Your task to perform on an android device: delete location history Image 0: 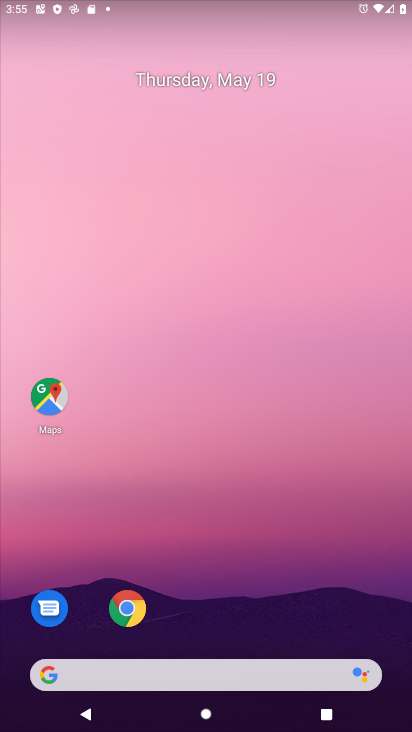
Step 0: drag from (326, 558) to (271, 183)
Your task to perform on an android device: delete location history Image 1: 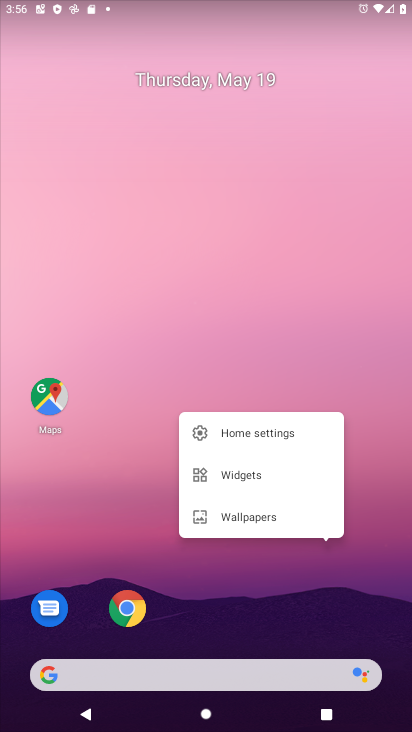
Step 1: click (313, 585)
Your task to perform on an android device: delete location history Image 2: 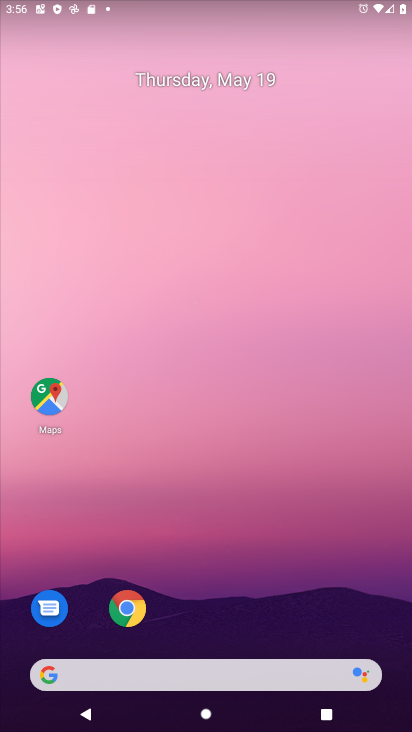
Step 2: drag from (313, 585) to (273, 256)
Your task to perform on an android device: delete location history Image 3: 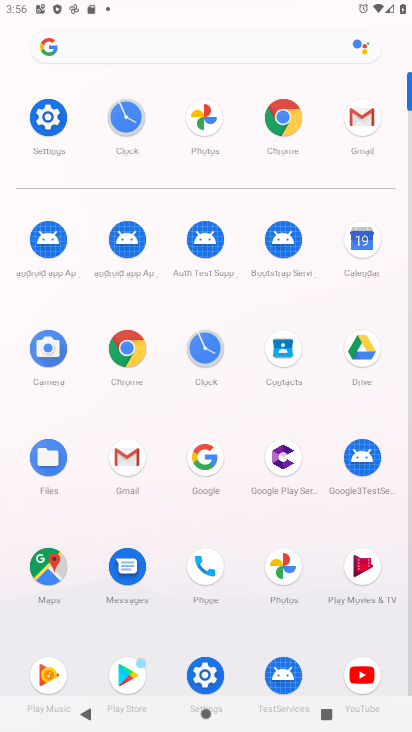
Step 3: click (30, 142)
Your task to perform on an android device: delete location history Image 4: 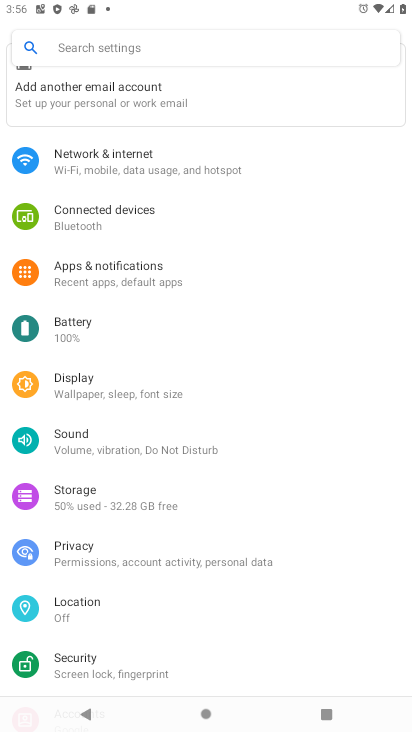
Step 4: click (214, 606)
Your task to perform on an android device: delete location history Image 5: 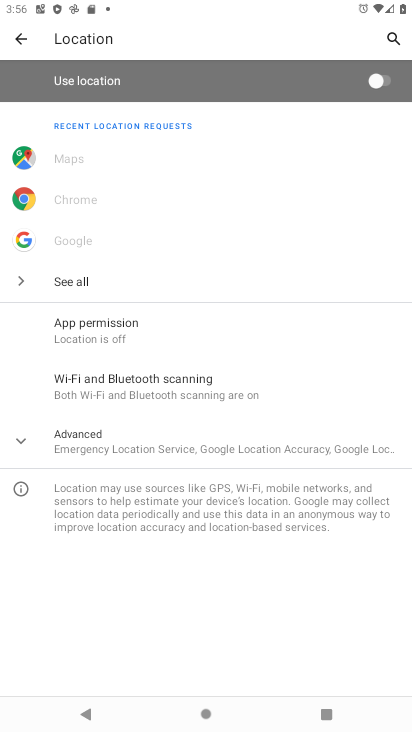
Step 5: click (176, 456)
Your task to perform on an android device: delete location history Image 6: 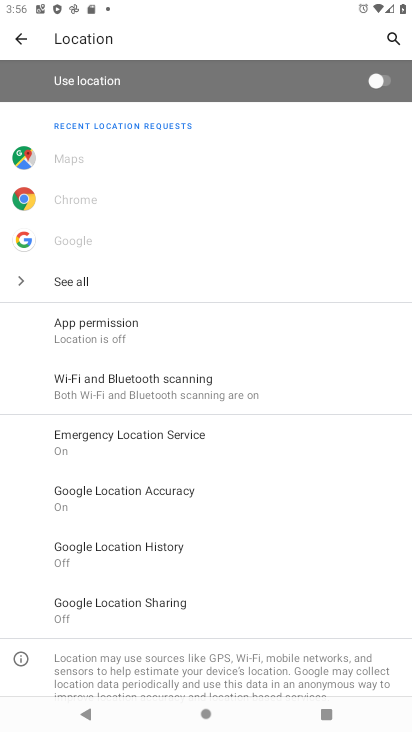
Step 6: click (203, 544)
Your task to perform on an android device: delete location history Image 7: 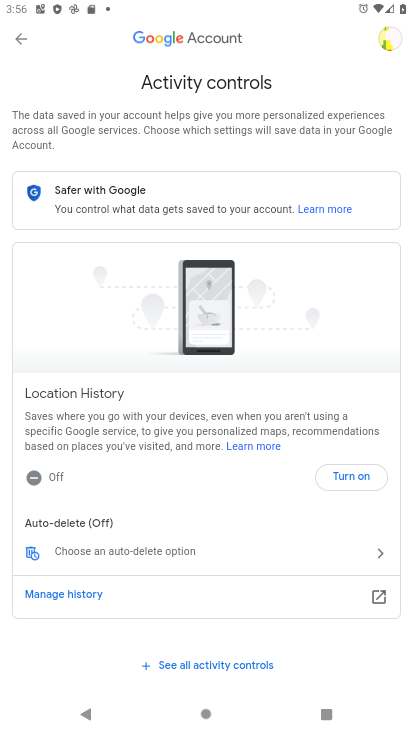
Step 7: task complete